Your task to perform on an android device: check google app version Image 0: 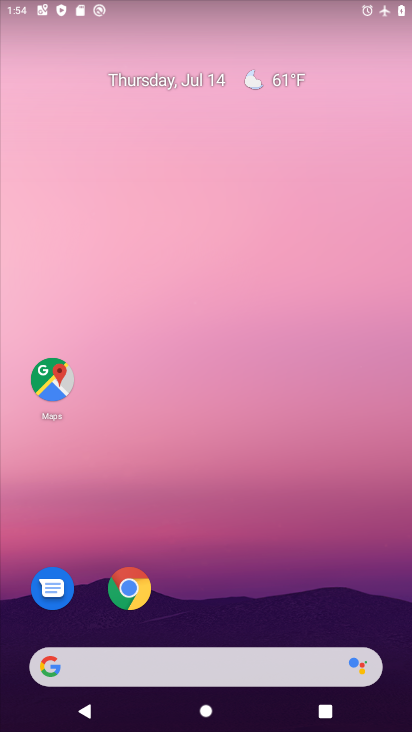
Step 0: drag from (247, 662) to (258, 187)
Your task to perform on an android device: check google app version Image 1: 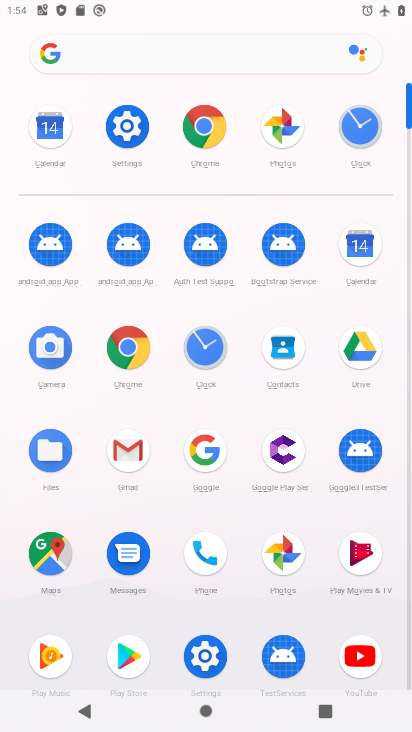
Step 1: click (202, 452)
Your task to perform on an android device: check google app version Image 2: 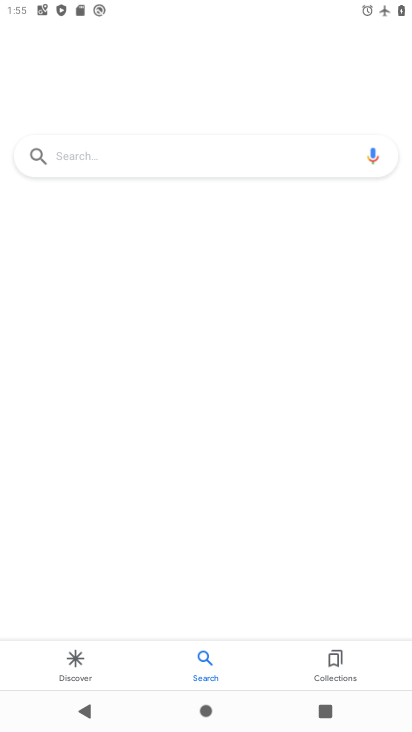
Step 2: click (39, 149)
Your task to perform on an android device: check google app version Image 3: 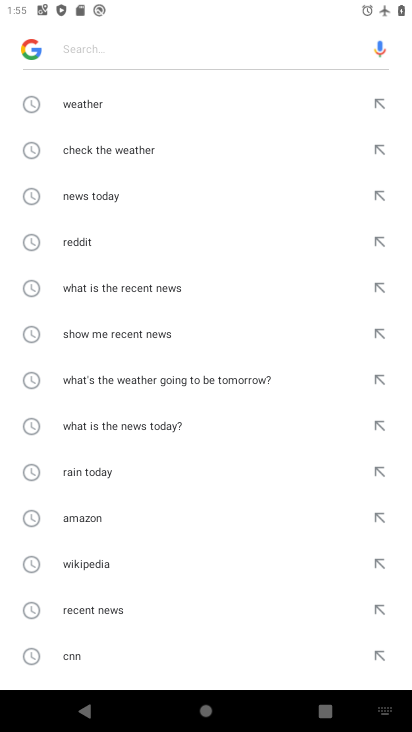
Step 3: click (16, 49)
Your task to perform on an android device: check google app version Image 4: 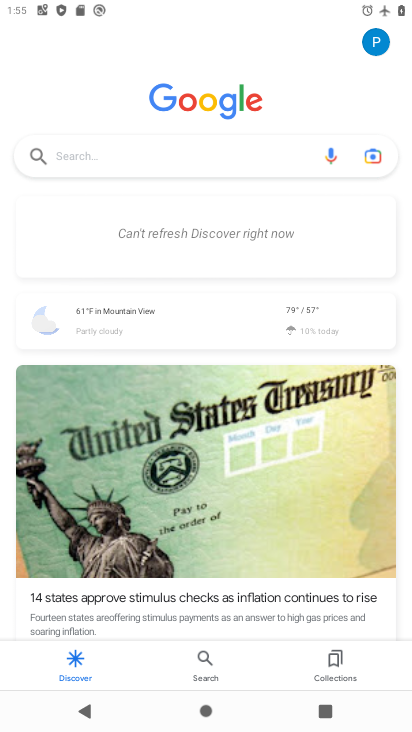
Step 4: click (392, 35)
Your task to perform on an android device: check google app version Image 5: 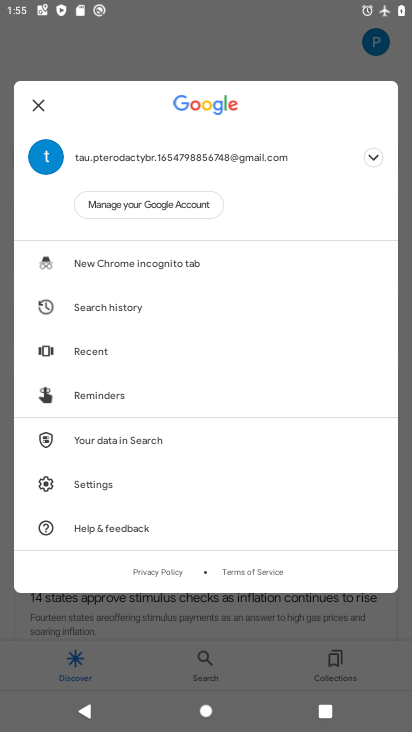
Step 5: click (105, 490)
Your task to perform on an android device: check google app version Image 6: 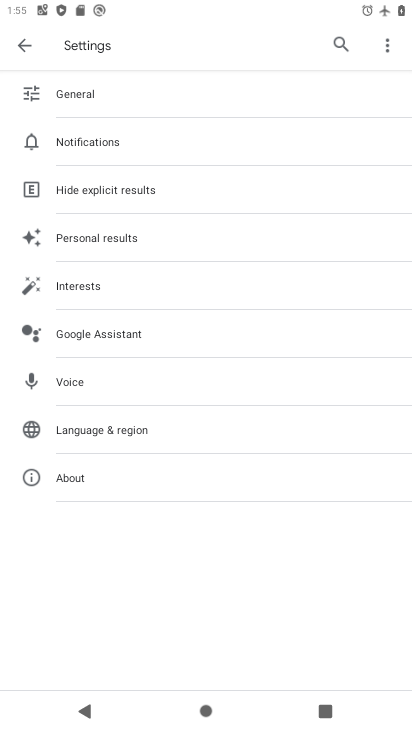
Step 6: click (89, 464)
Your task to perform on an android device: check google app version Image 7: 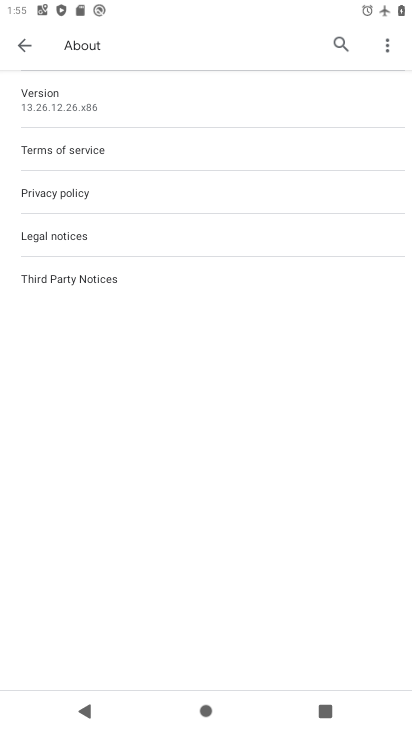
Step 7: task complete